Your task to perform on an android device: remove spam from my inbox in the gmail app Image 0: 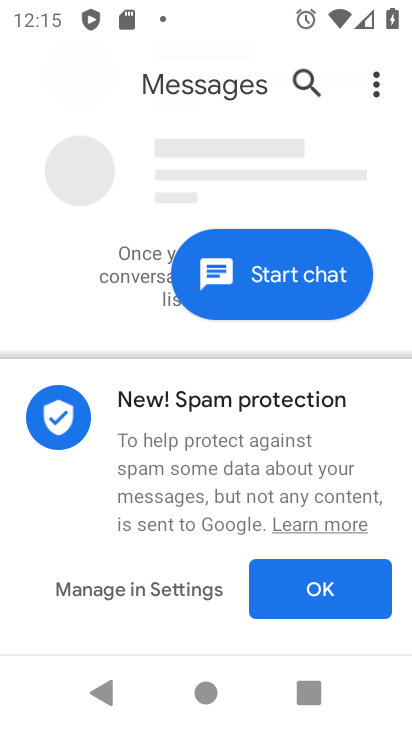
Step 0: press home button
Your task to perform on an android device: remove spam from my inbox in the gmail app Image 1: 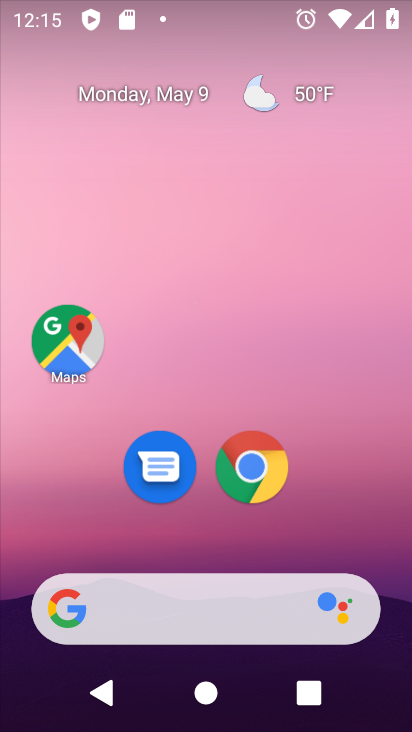
Step 1: drag from (204, 547) to (209, 75)
Your task to perform on an android device: remove spam from my inbox in the gmail app Image 2: 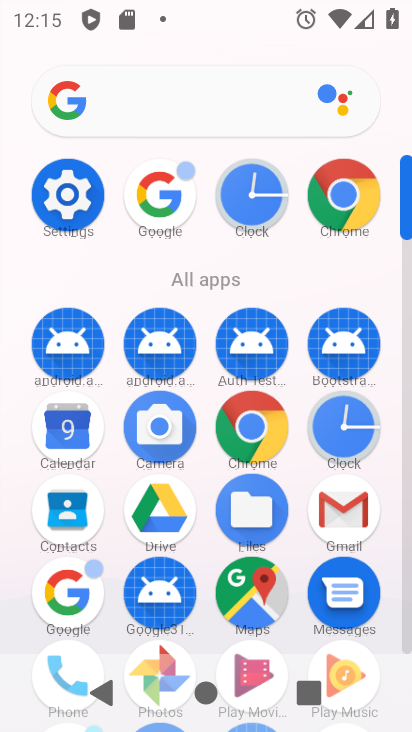
Step 2: click (342, 502)
Your task to perform on an android device: remove spam from my inbox in the gmail app Image 3: 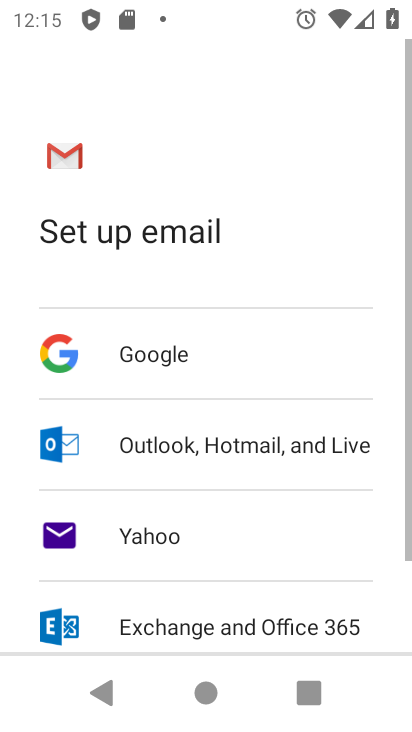
Step 3: press home button
Your task to perform on an android device: remove spam from my inbox in the gmail app Image 4: 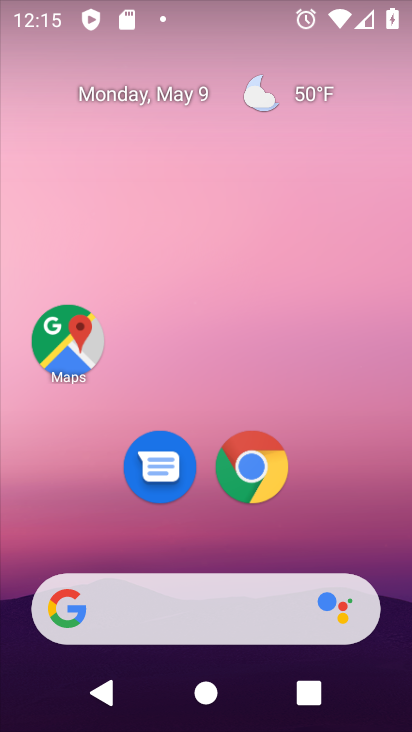
Step 4: drag from (215, 549) to (272, 31)
Your task to perform on an android device: remove spam from my inbox in the gmail app Image 5: 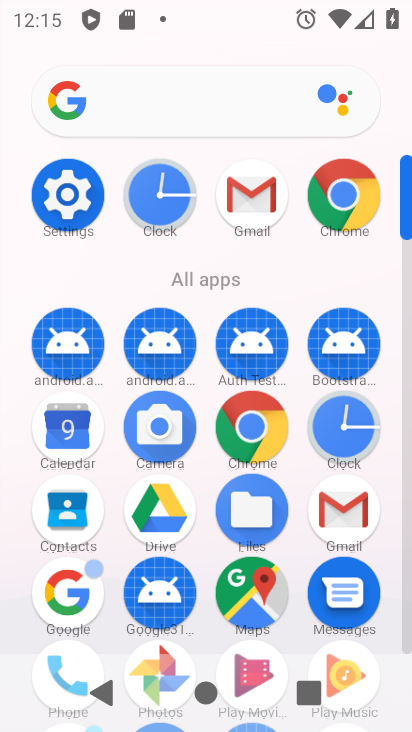
Step 5: click (344, 499)
Your task to perform on an android device: remove spam from my inbox in the gmail app Image 6: 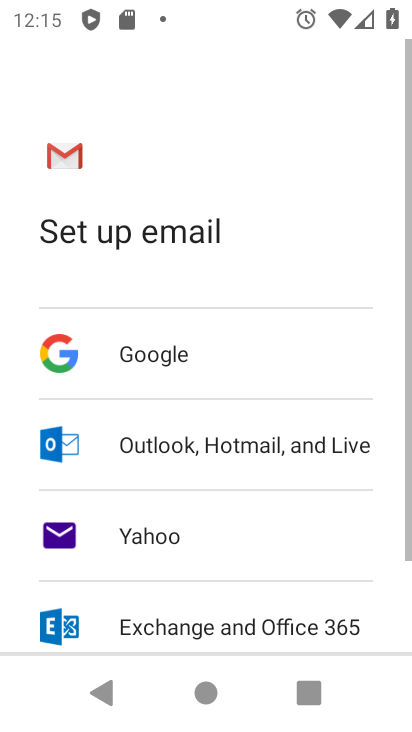
Step 6: press back button
Your task to perform on an android device: remove spam from my inbox in the gmail app Image 7: 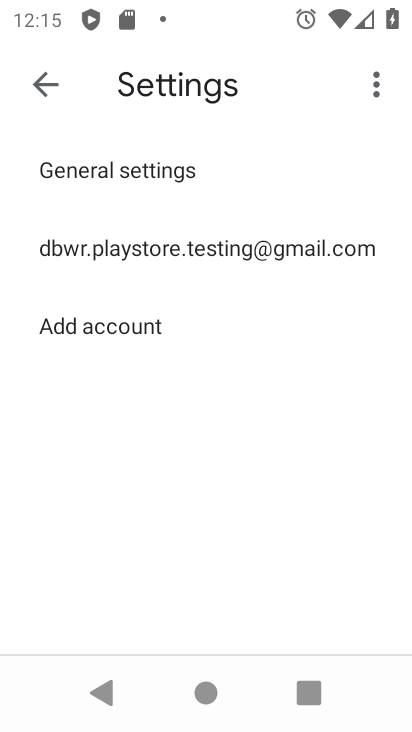
Step 7: click (42, 94)
Your task to perform on an android device: remove spam from my inbox in the gmail app Image 8: 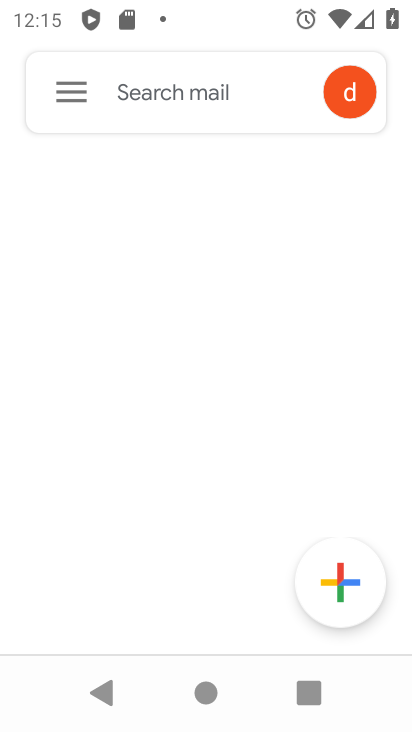
Step 8: click (65, 91)
Your task to perform on an android device: remove spam from my inbox in the gmail app Image 9: 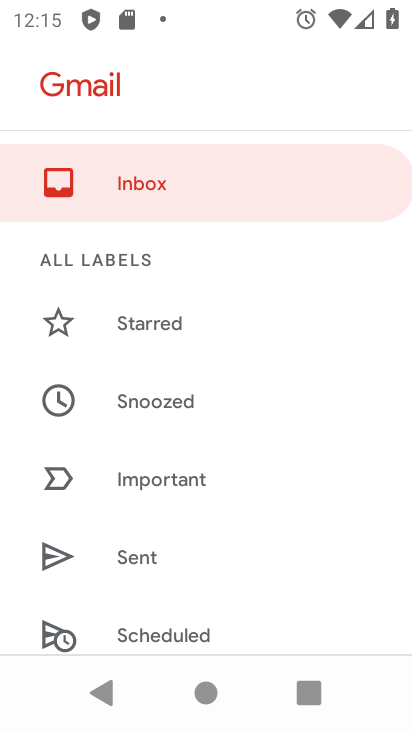
Step 9: drag from (169, 615) to (221, 58)
Your task to perform on an android device: remove spam from my inbox in the gmail app Image 10: 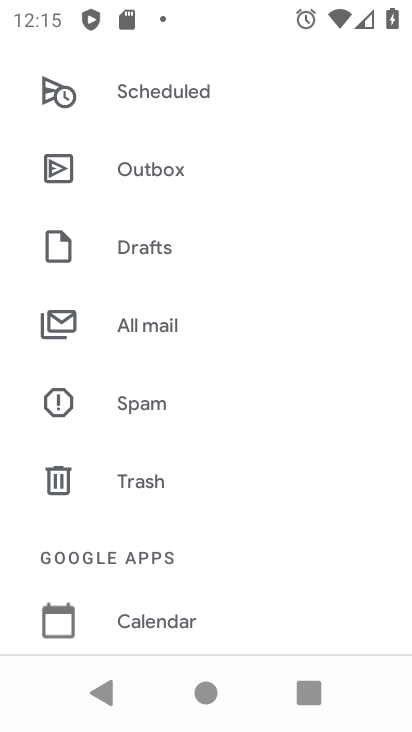
Step 10: click (169, 398)
Your task to perform on an android device: remove spam from my inbox in the gmail app Image 11: 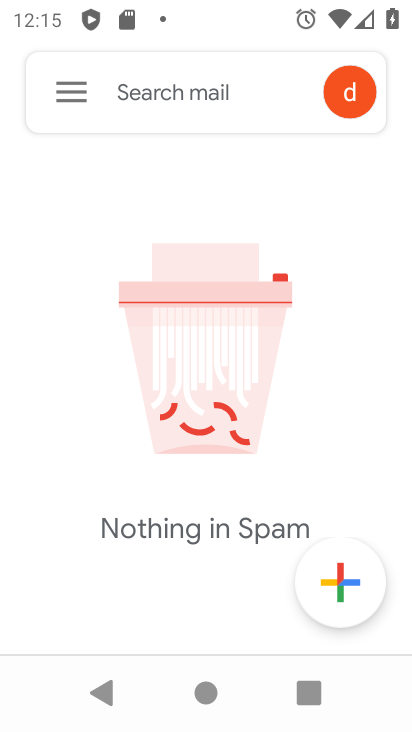
Step 11: task complete